Your task to perform on an android device: Turn on the flashlight Image 0: 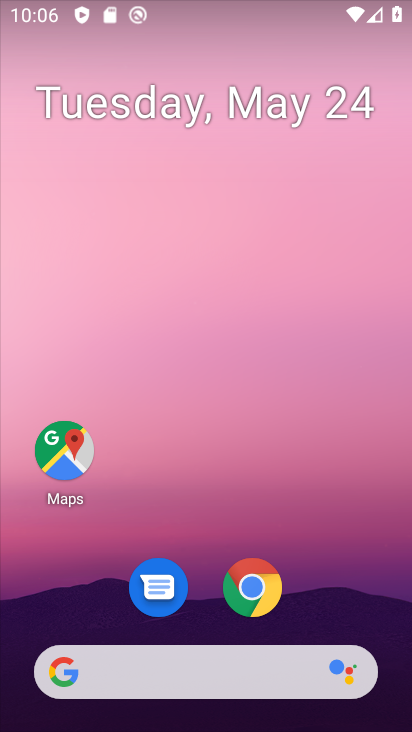
Step 0: press home button
Your task to perform on an android device: Turn on the flashlight Image 1: 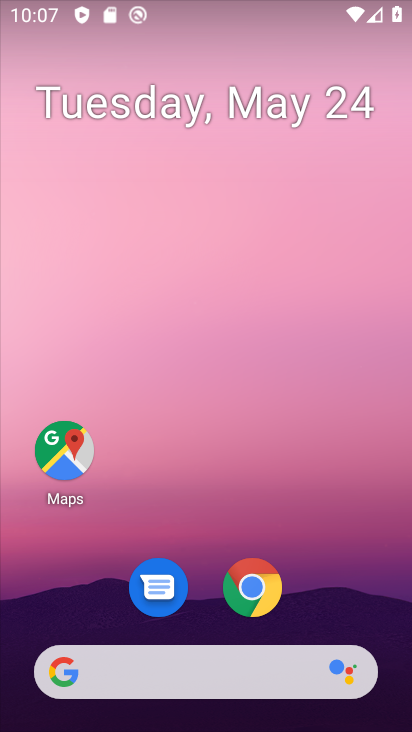
Step 1: task complete